Your task to perform on an android device: check storage Image 0: 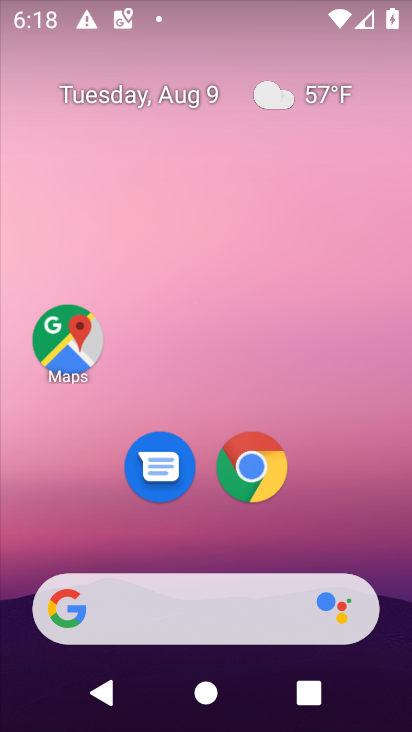
Step 0: drag from (204, 425) to (190, 93)
Your task to perform on an android device: check storage Image 1: 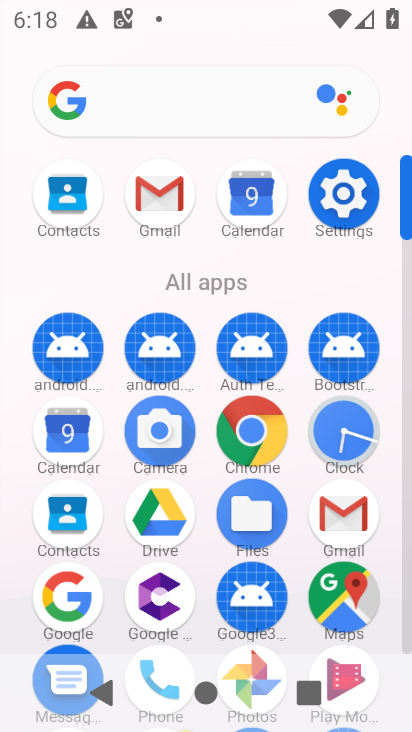
Step 1: click (342, 186)
Your task to perform on an android device: check storage Image 2: 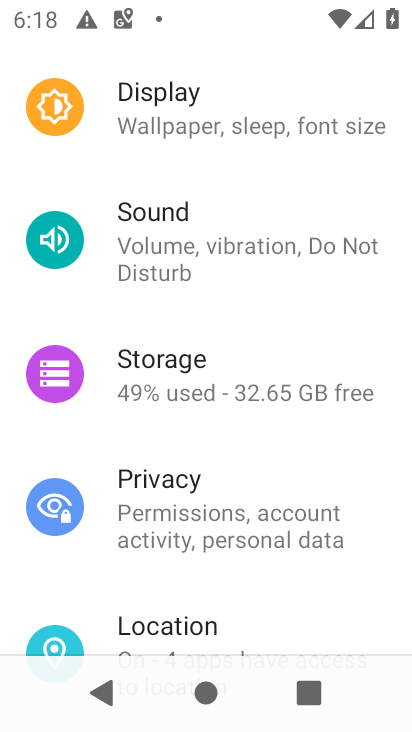
Step 2: click (201, 377)
Your task to perform on an android device: check storage Image 3: 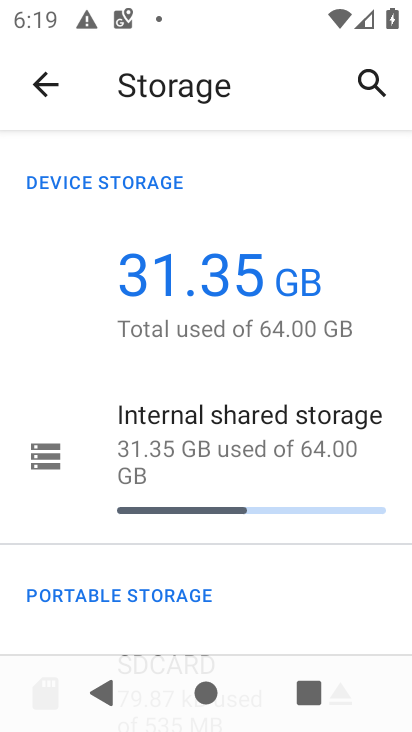
Step 3: task complete